Your task to perform on an android device: Open battery settings Image 0: 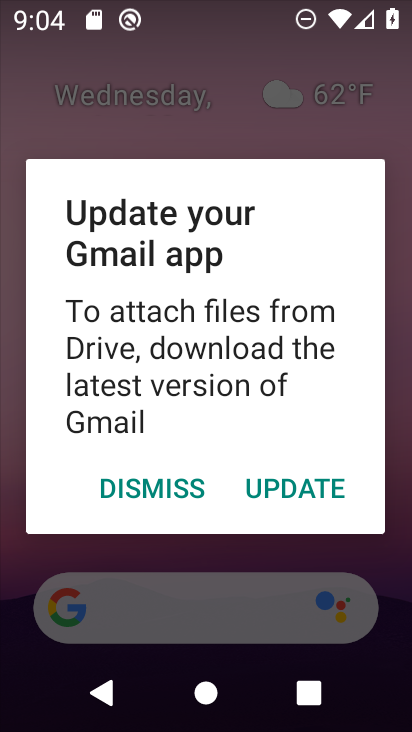
Step 0: press home button
Your task to perform on an android device: Open battery settings Image 1: 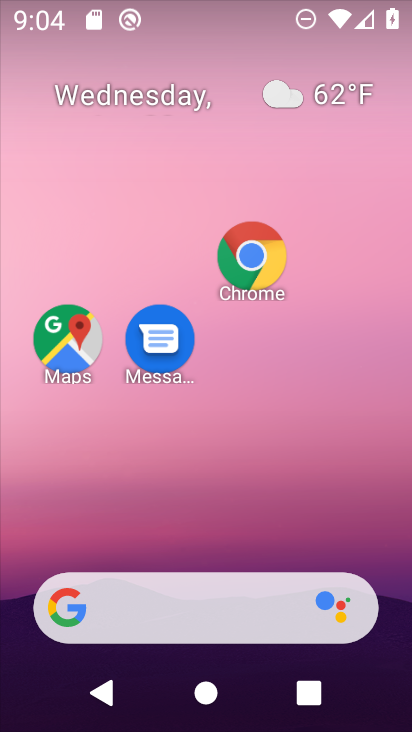
Step 1: drag from (234, 505) to (190, 98)
Your task to perform on an android device: Open battery settings Image 2: 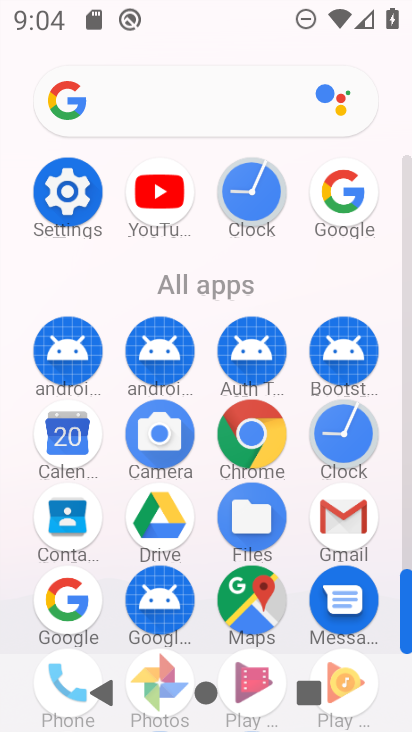
Step 2: click (69, 190)
Your task to perform on an android device: Open battery settings Image 3: 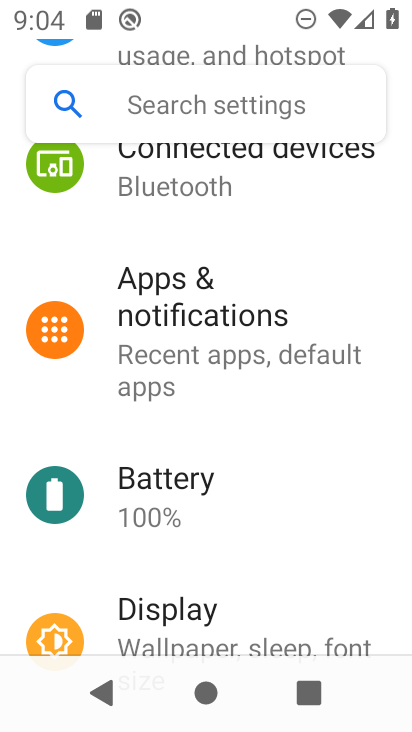
Step 3: click (205, 491)
Your task to perform on an android device: Open battery settings Image 4: 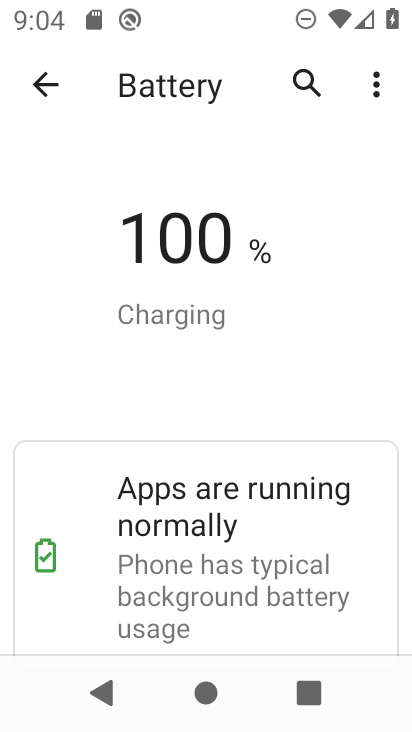
Step 4: task complete